Your task to perform on an android device: What's the weather going to be tomorrow? Image 0: 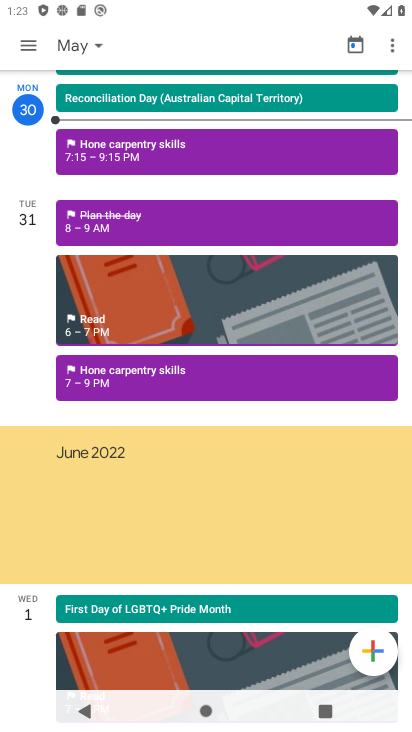
Step 0: press home button
Your task to perform on an android device: What's the weather going to be tomorrow? Image 1: 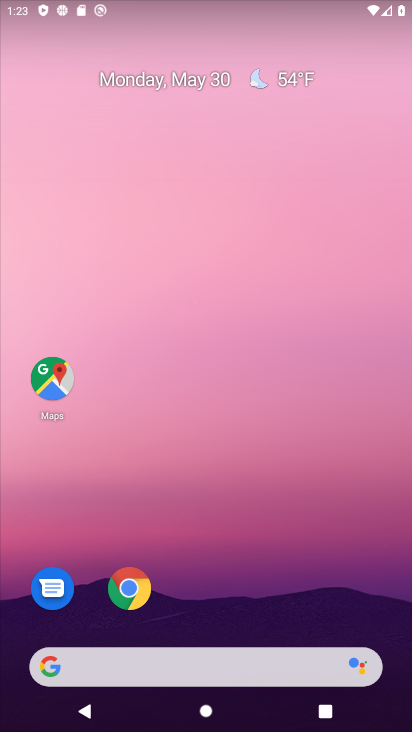
Step 1: drag from (255, 590) to (340, 70)
Your task to perform on an android device: What's the weather going to be tomorrow? Image 2: 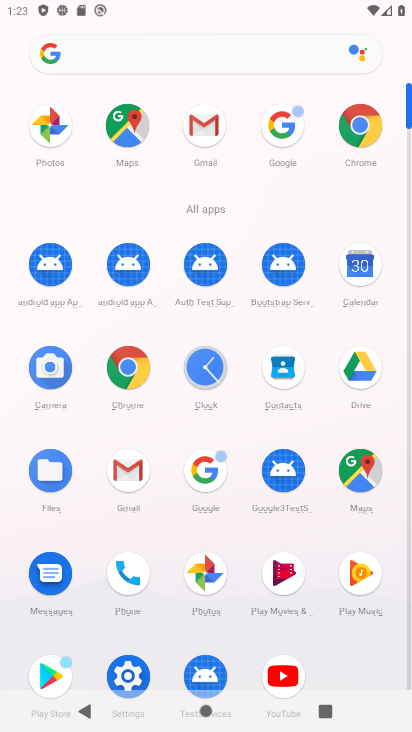
Step 2: click (207, 469)
Your task to perform on an android device: What's the weather going to be tomorrow? Image 3: 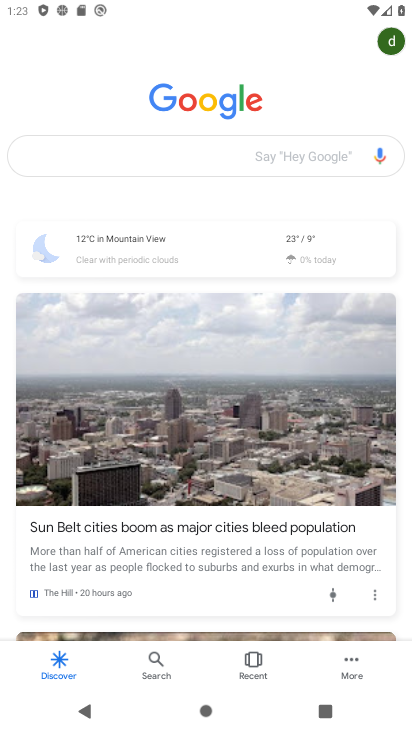
Step 3: click (153, 164)
Your task to perform on an android device: What's the weather going to be tomorrow? Image 4: 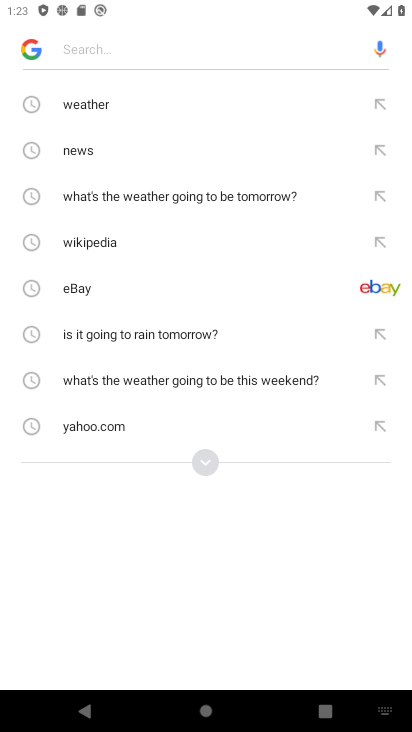
Step 4: click (216, 192)
Your task to perform on an android device: What's the weather going to be tomorrow? Image 5: 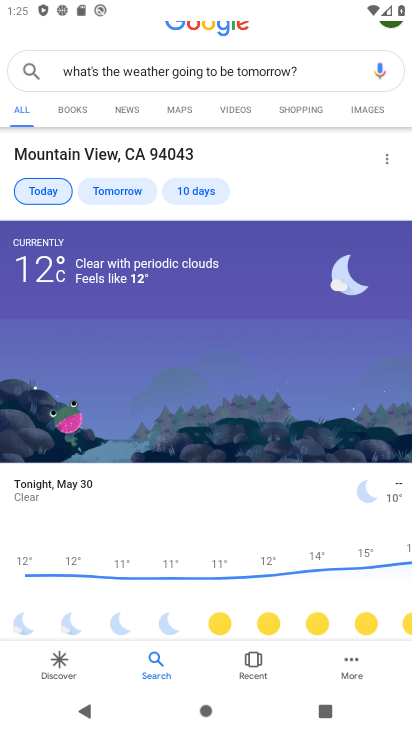
Step 5: task complete